Your task to perform on an android device: Go to Reddit.com Image 0: 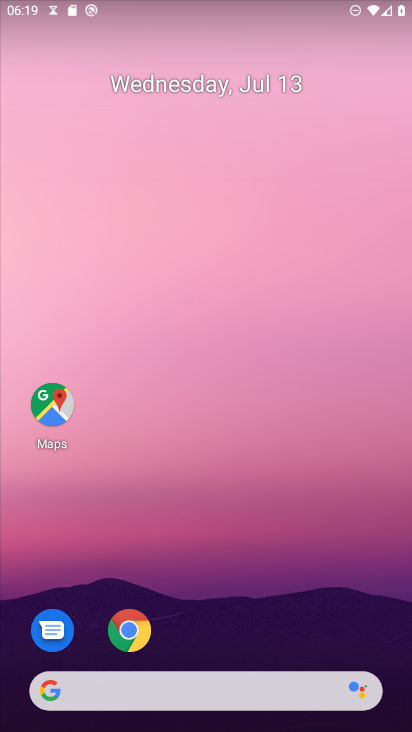
Step 0: drag from (198, 707) to (250, 19)
Your task to perform on an android device: Go to Reddit.com Image 1: 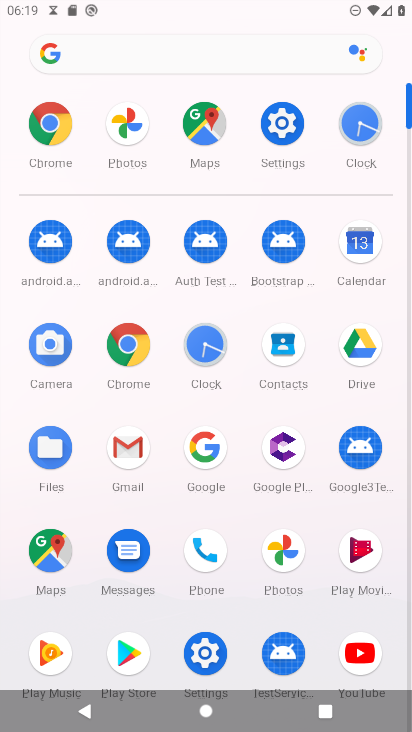
Step 1: click (136, 353)
Your task to perform on an android device: Go to Reddit.com Image 2: 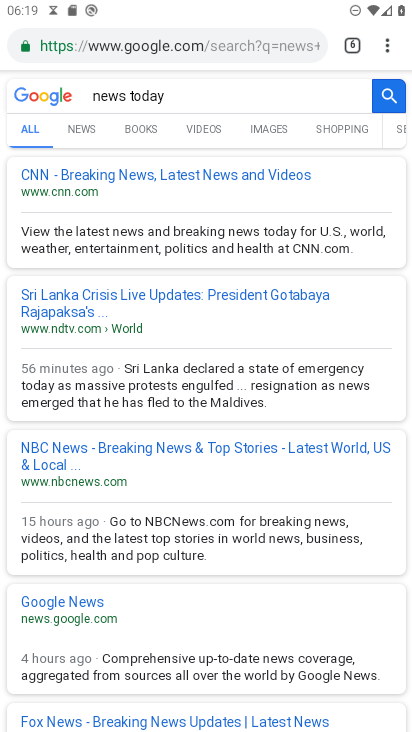
Step 2: click (257, 42)
Your task to perform on an android device: Go to Reddit.com Image 3: 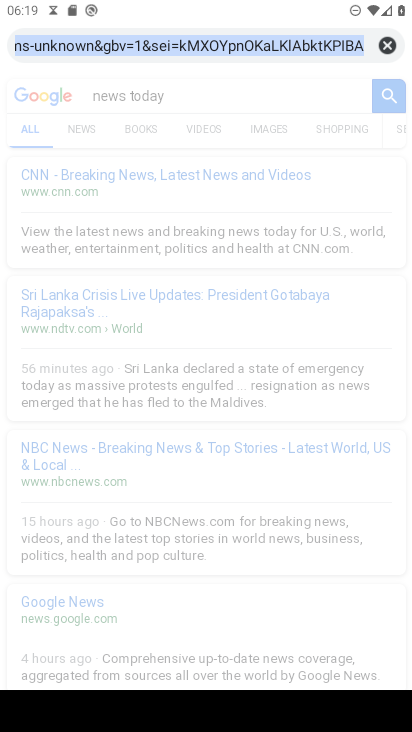
Step 3: type "reddit.com"
Your task to perform on an android device: Go to Reddit.com Image 4: 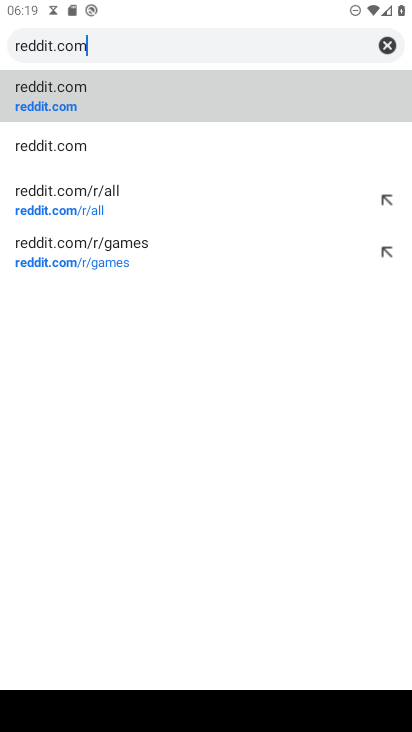
Step 4: click (121, 90)
Your task to perform on an android device: Go to Reddit.com Image 5: 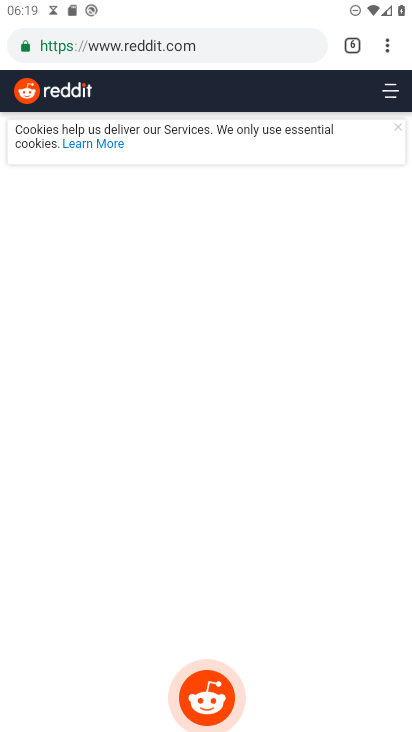
Step 5: task complete